Your task to perform on an android device: change the clock display to digital Image 0: 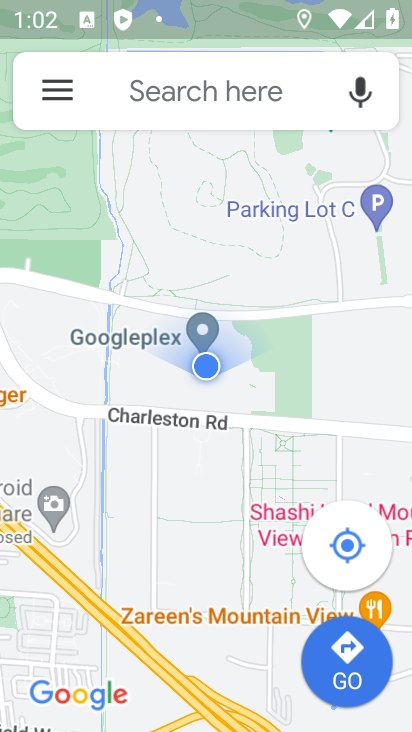
Step 0: press home button
Your task to perform on an android device: change the clock display to digital Image 1: 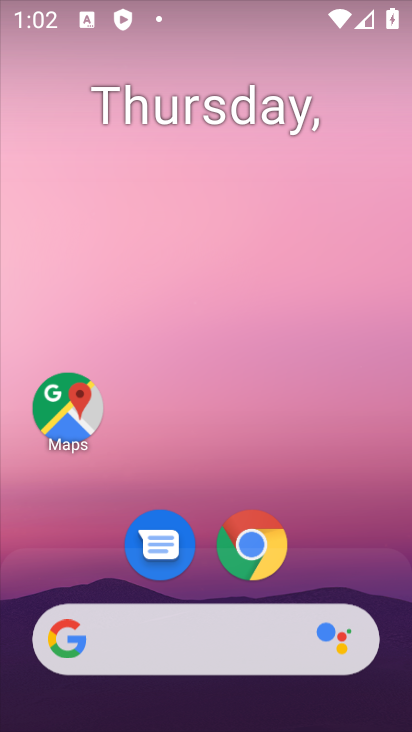
Step 1: drag from (279, 700) to (253, 35)
Your task to perform on an android device: change the clock display to digital Image 2: 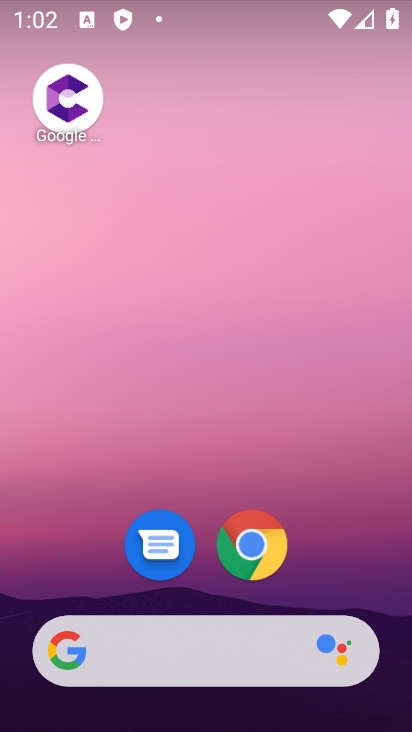
Step 2: drag from (293, 646) to (261, 72)
Your task to perform on an android device: change the clock display to digital Image 3: 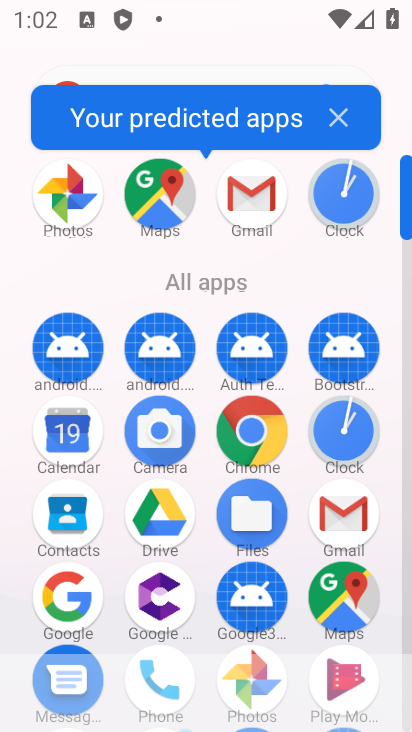
Step 3: click (350, 420)
Your task to perform on an android device: change the clock display to digital Image 4: 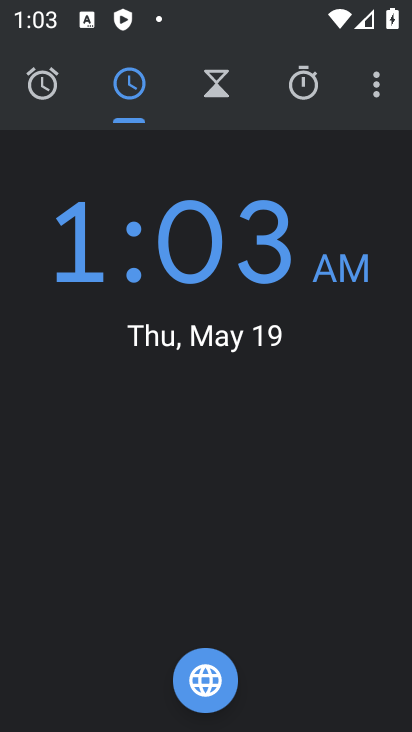
Step 4: click (378, 84)
Your task to perform on an android device: change the clock display to digital Image 5: 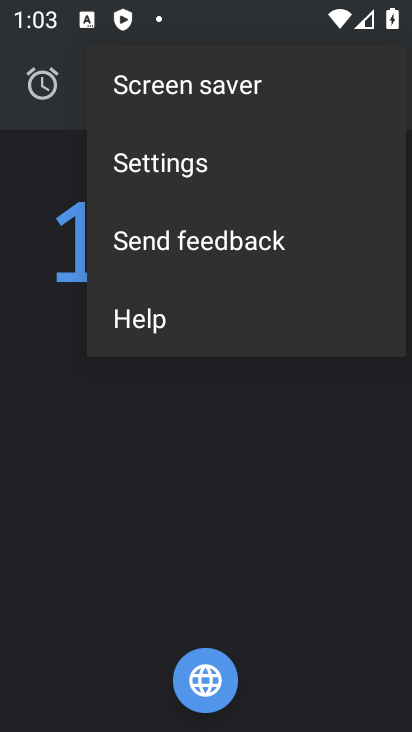
Step 5: click (243, 165)
Your task to perform on an android device: change the clock display to digital Image 6: 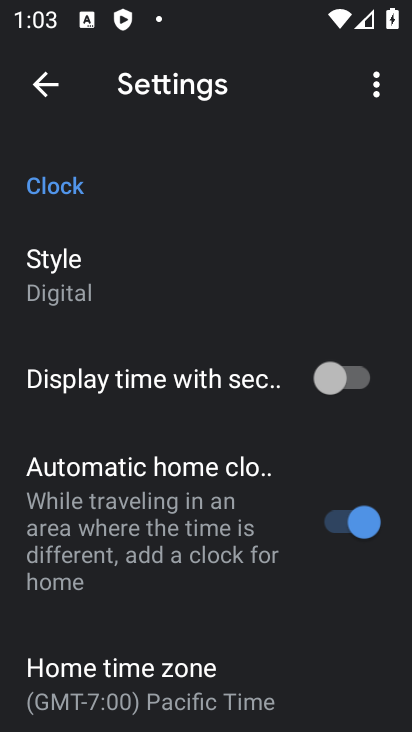
Step 6: task complete